Your task to perform on an android device: add a contact Image 0: 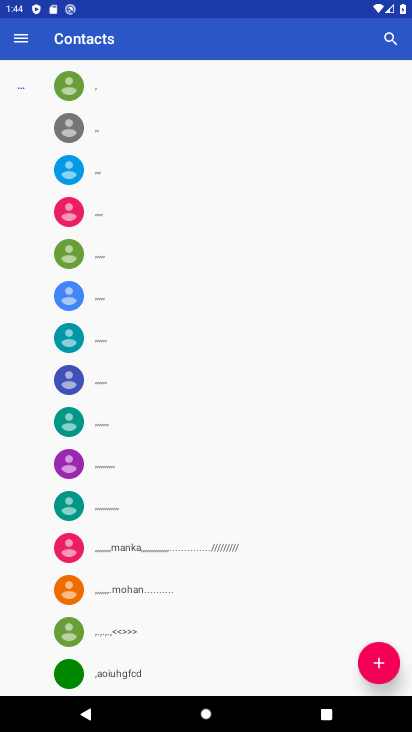
Step 0: click (371, 666)
Your task to perform on an android device: add a contact Image 1: 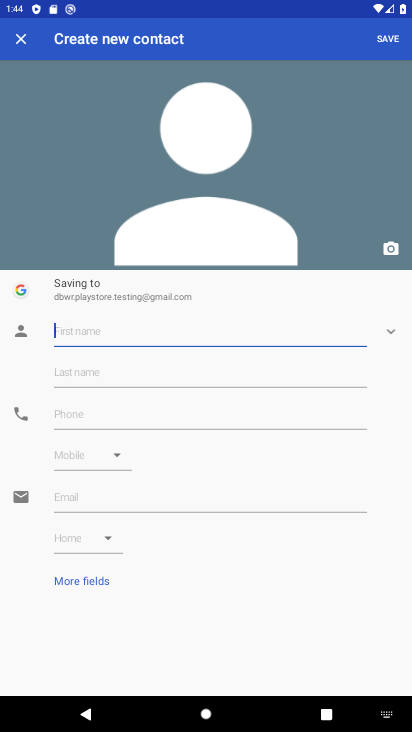
Step 1: type "polis"
Your task to perform on an android device: add a contact Image 2: 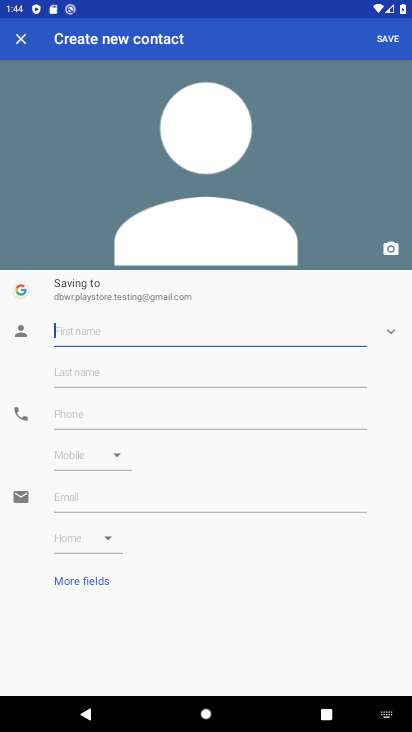
Step 2: click (393, 44)
Your task to perform on an android device: add a contact Image 3: 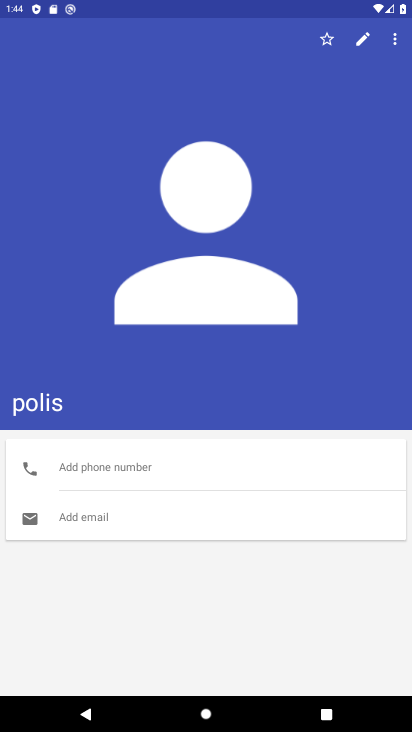
Step 3: task complete